Your task to perform on an android device: Open Chrome and go to the settings page Image 0: 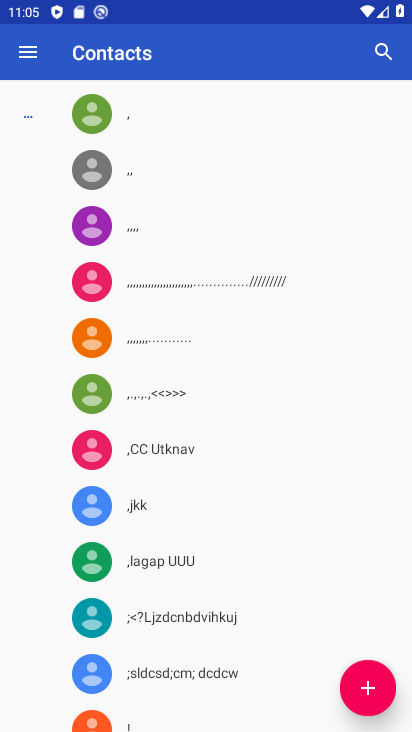
Step 0: press home button
Your task to perform on an android device: Open Chrome and go to the settings page Image 1: 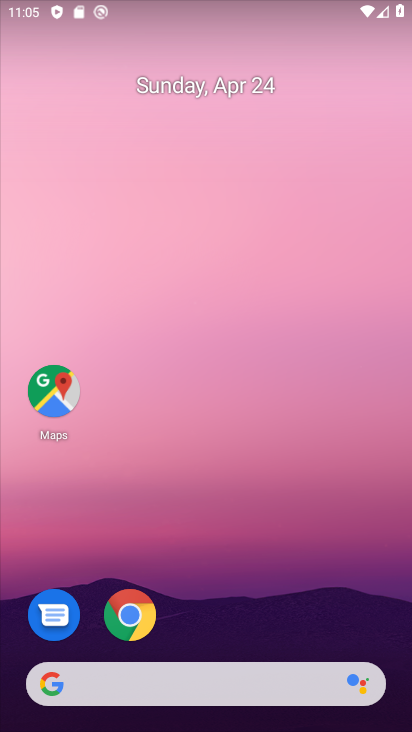
Step 1: click (151, 625)
Your task to perform on an android device: Open Chrome and go to the settings page Image 2: 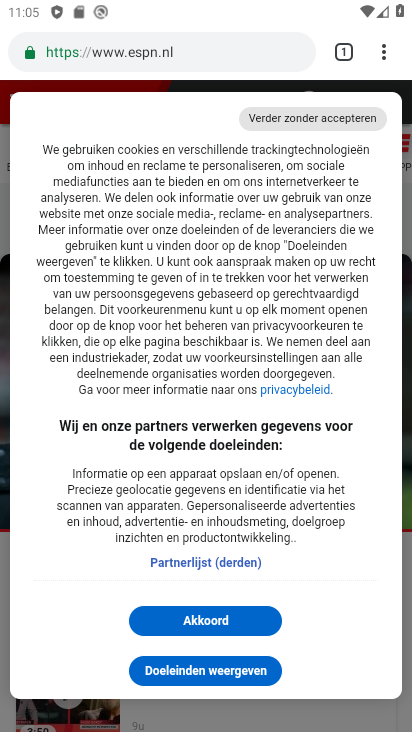
Step 2: click (377, 53)
Your task to perform on an android device: Open Chrome and go to the settings page Image 3: 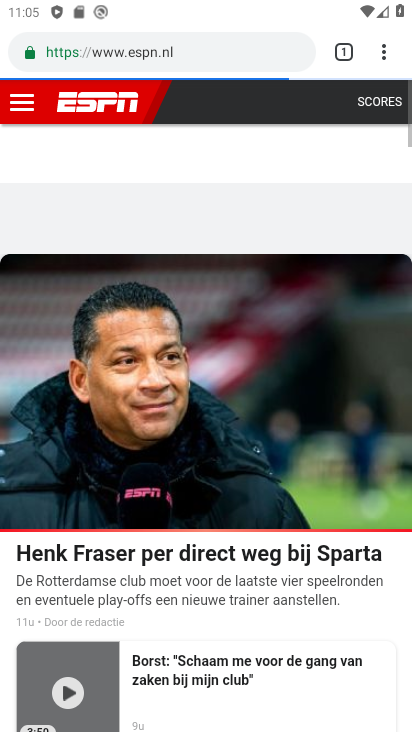
Step 3: click (382, 51)
Your task to perform on an android device: Open Chrome and go to the settings page Image 4: 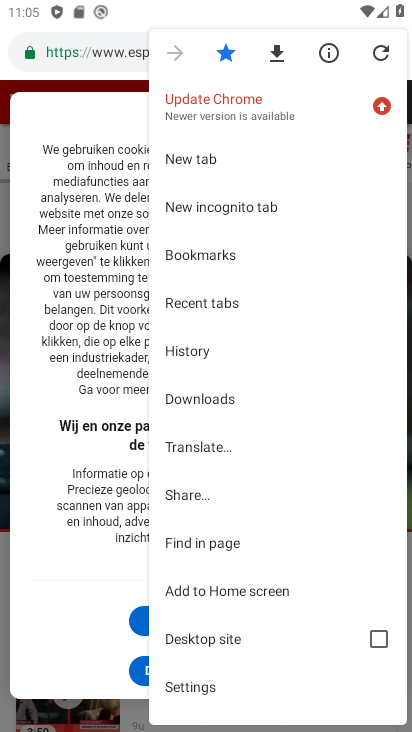
Step 4: click (227, 679)
Your task to perform on an android device: Open Chrome and go to the settings page Image 5: 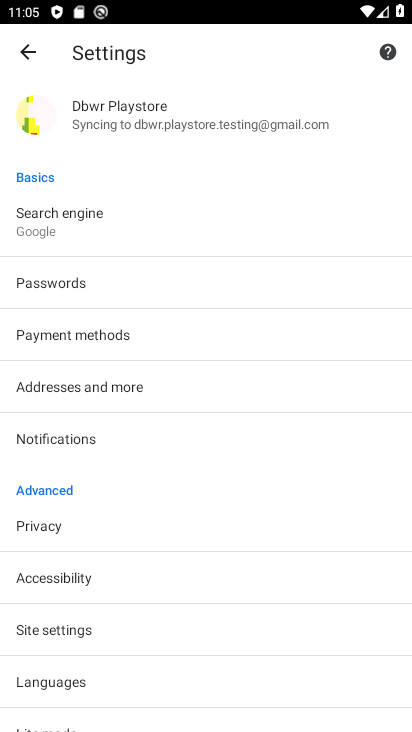
Step 5: task complete